Your task to perform on an android device: uninstall "Speedtest by Ookla" Image 0: 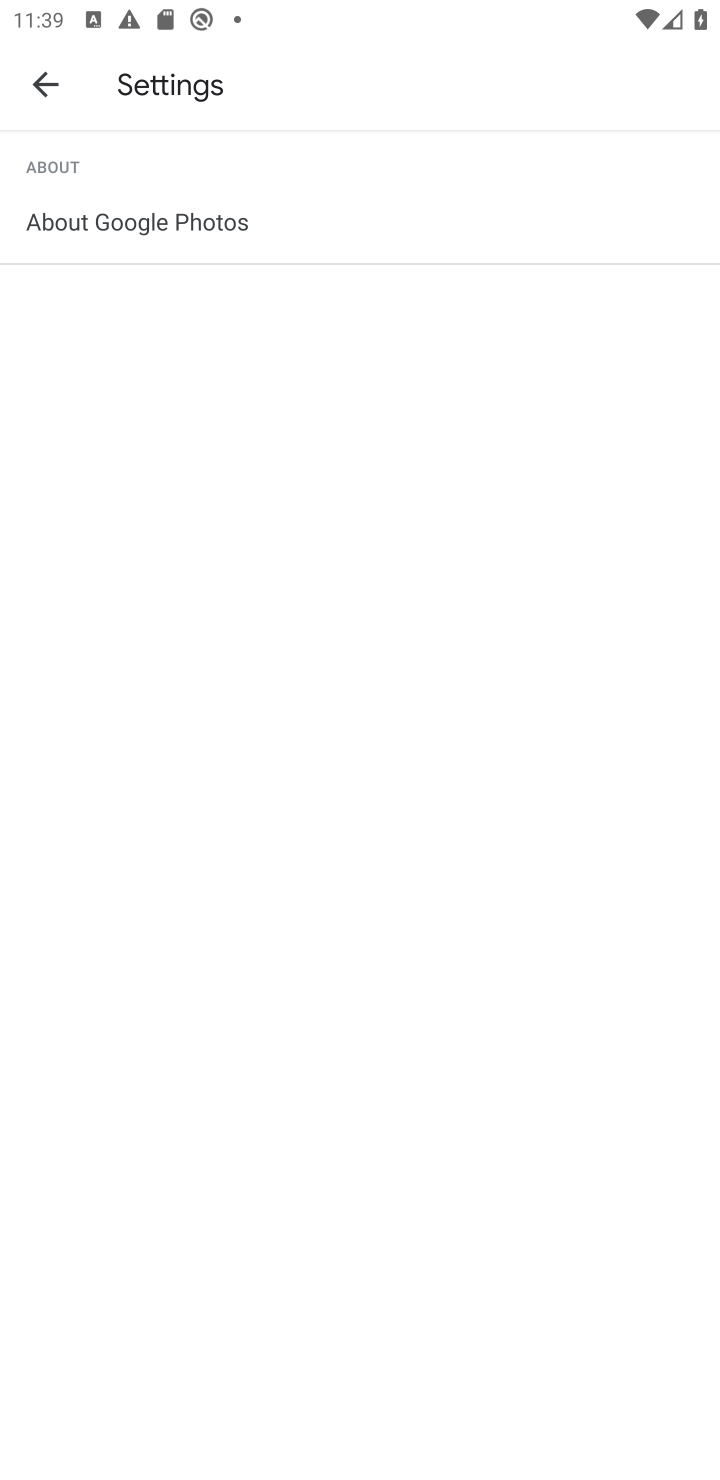
Step 0: press home button
Your task to perform on an android device: uninstall "Speedtest by Ookla" Image 1: 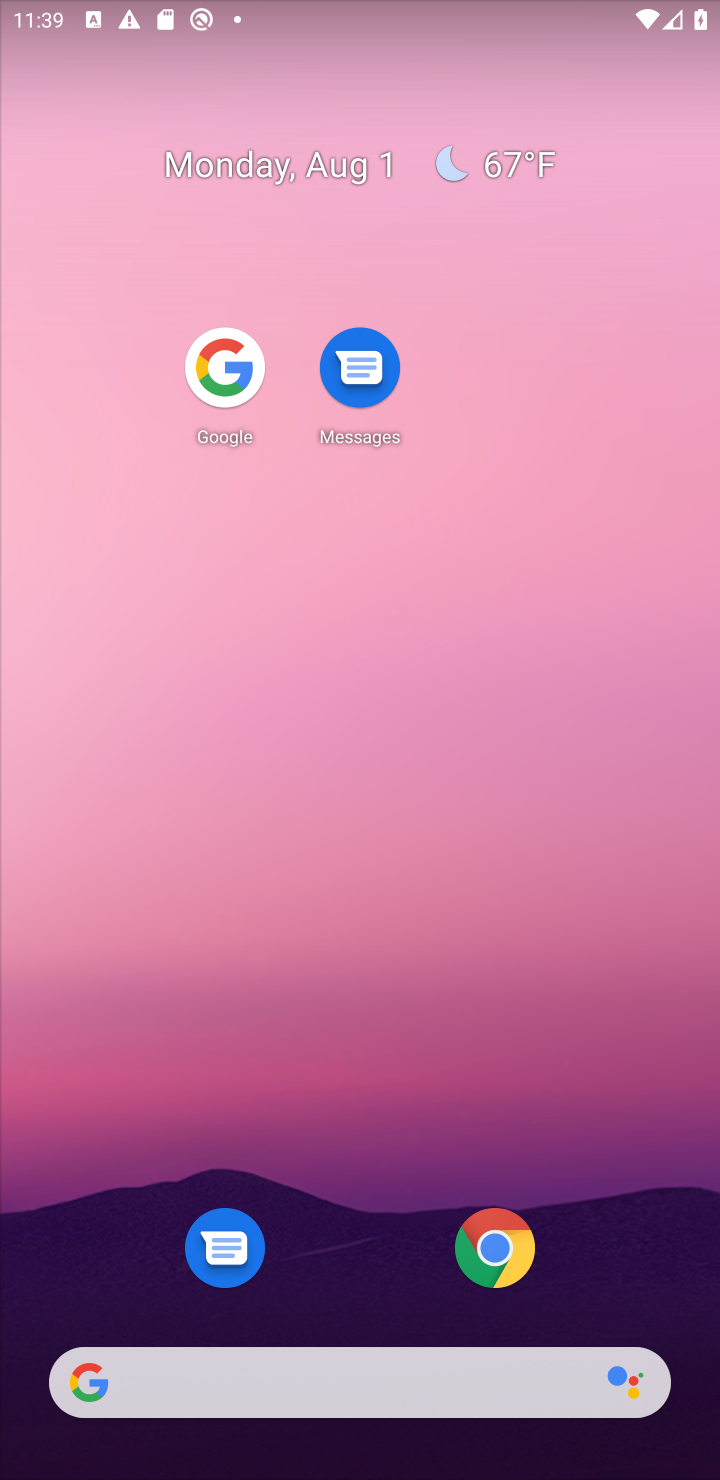
Step 1: drag from (654, 1231) to (603, 203)
Your task to perform on an android device: uninstall "Speedtest by Ookla" Image 2: 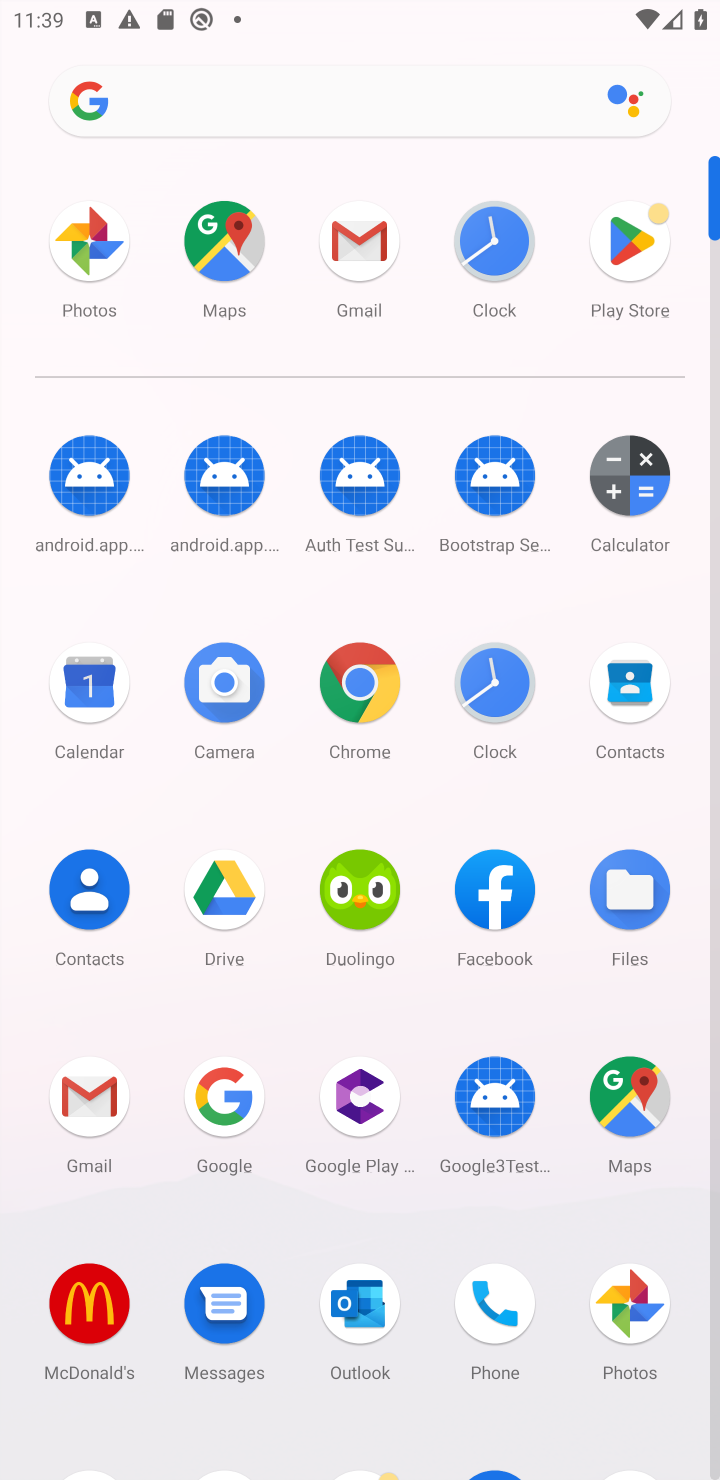
Step 2: drag from (400, 1217) to (418, 435)
Your task to perform on an android device: uninstall "Speedtest by Ookla" Image 3: 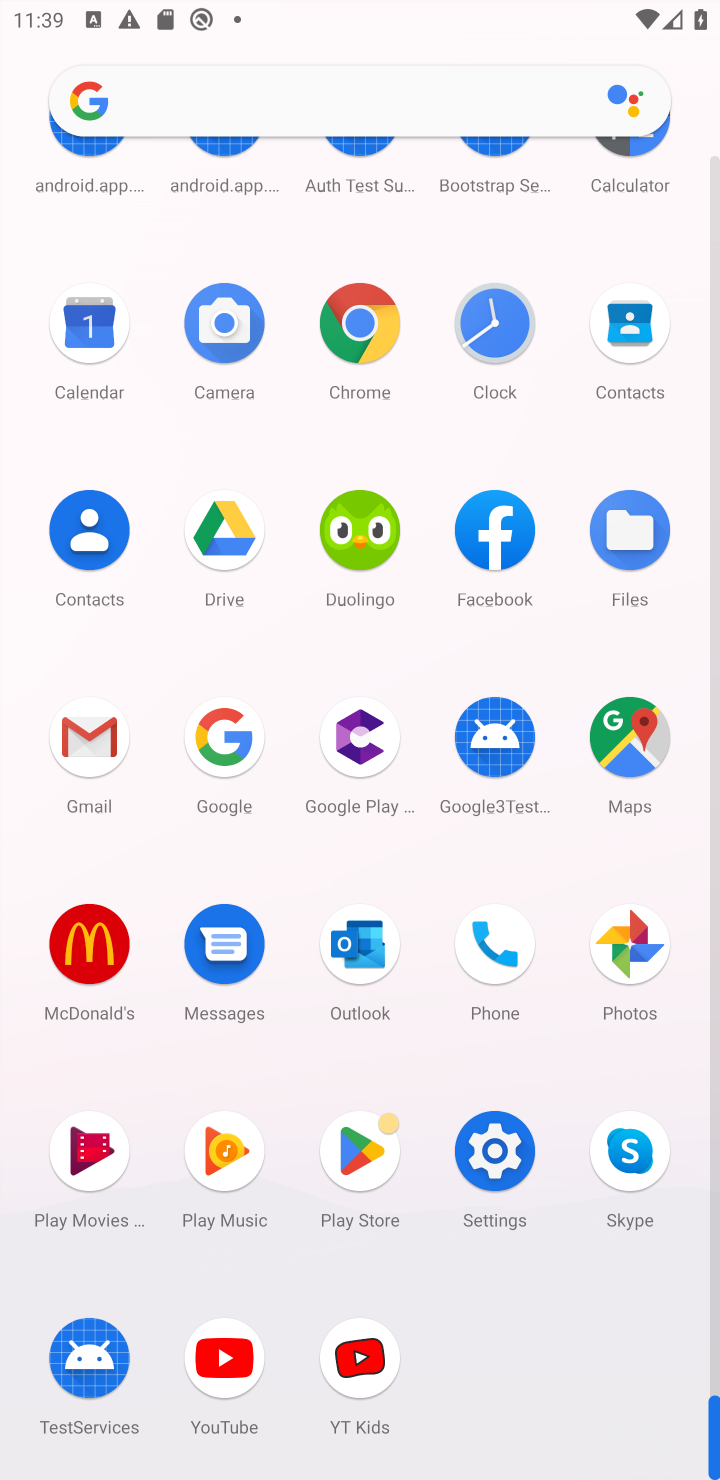
Step 3: click (363, 1152)
Your task to perform on an android device: uninstall "Speedtest by Ookla" Image 4: 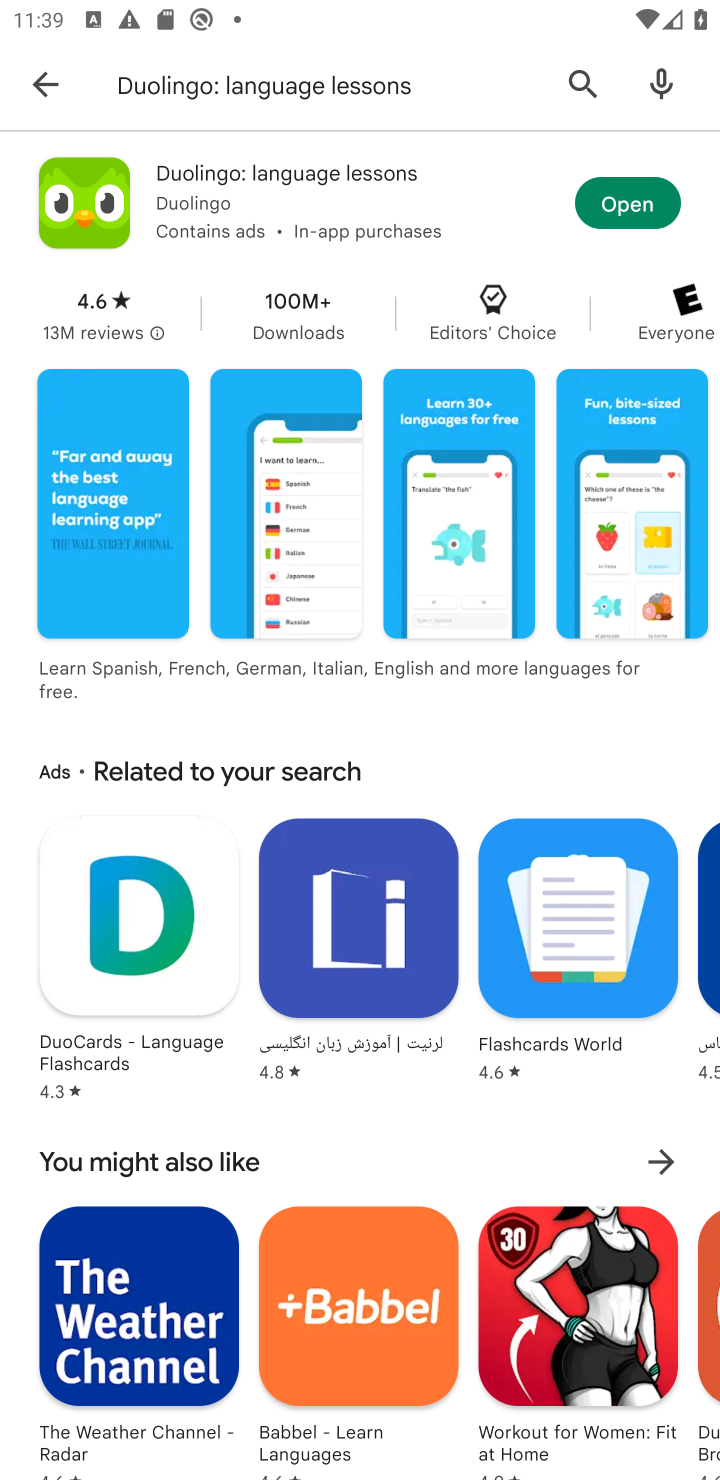
Step 4: click (459, 58)
Your task to perform on an android device: uninstall "Speedtest by Ookla" Image 5: 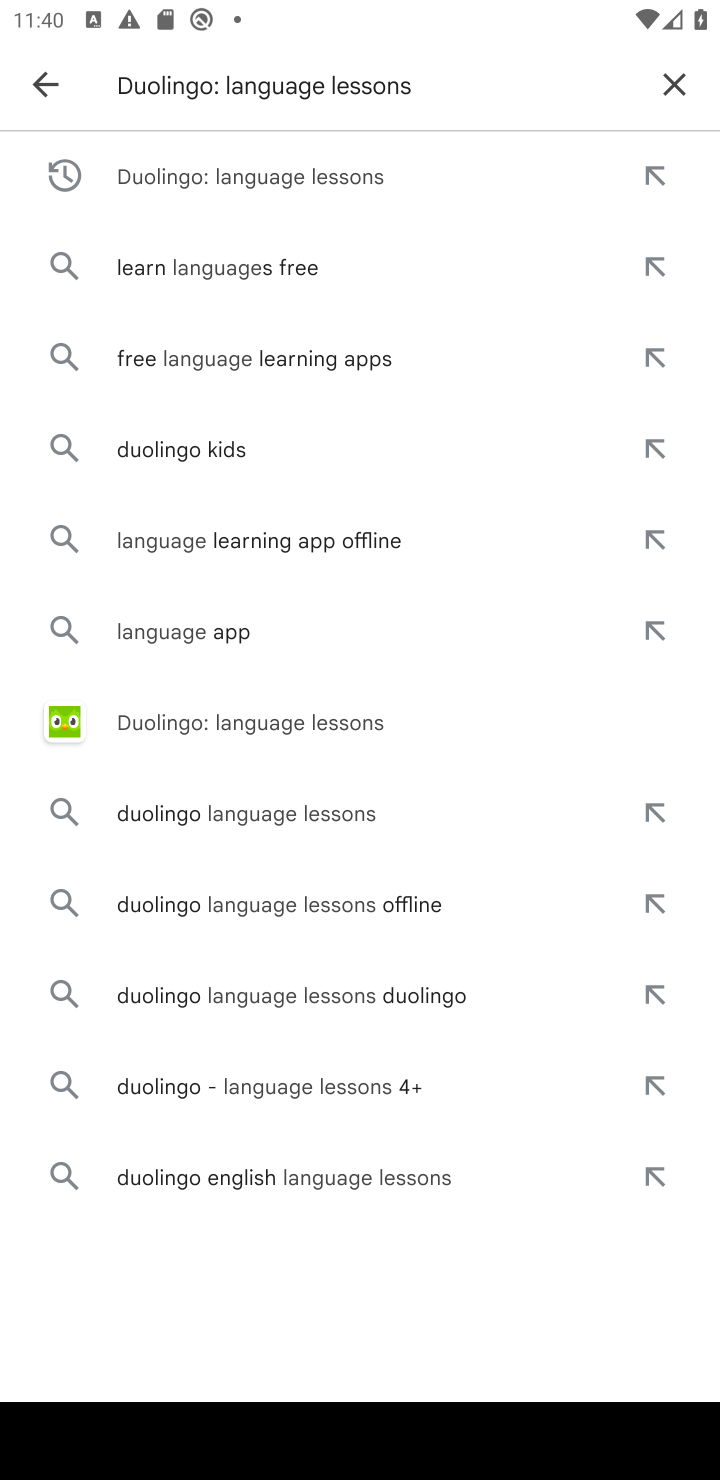
Step 5: click (681, 76)
Your task to perform on an android device: uninstall "Speedtest by Ookla" Image 6: 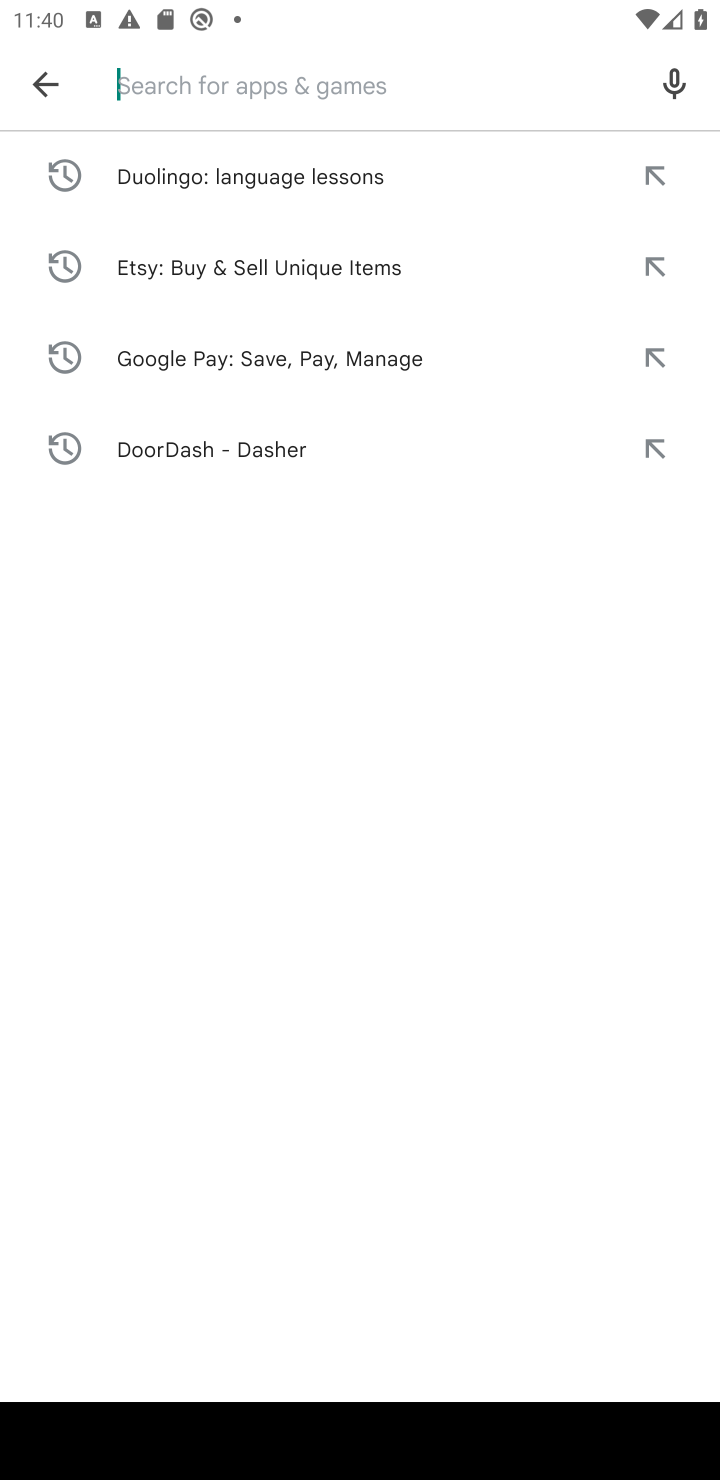
Step 6: type "Speedtest by Ookla"
Your task to perform on an android device: uninstall "Speedtest by Ookla" Image 7: 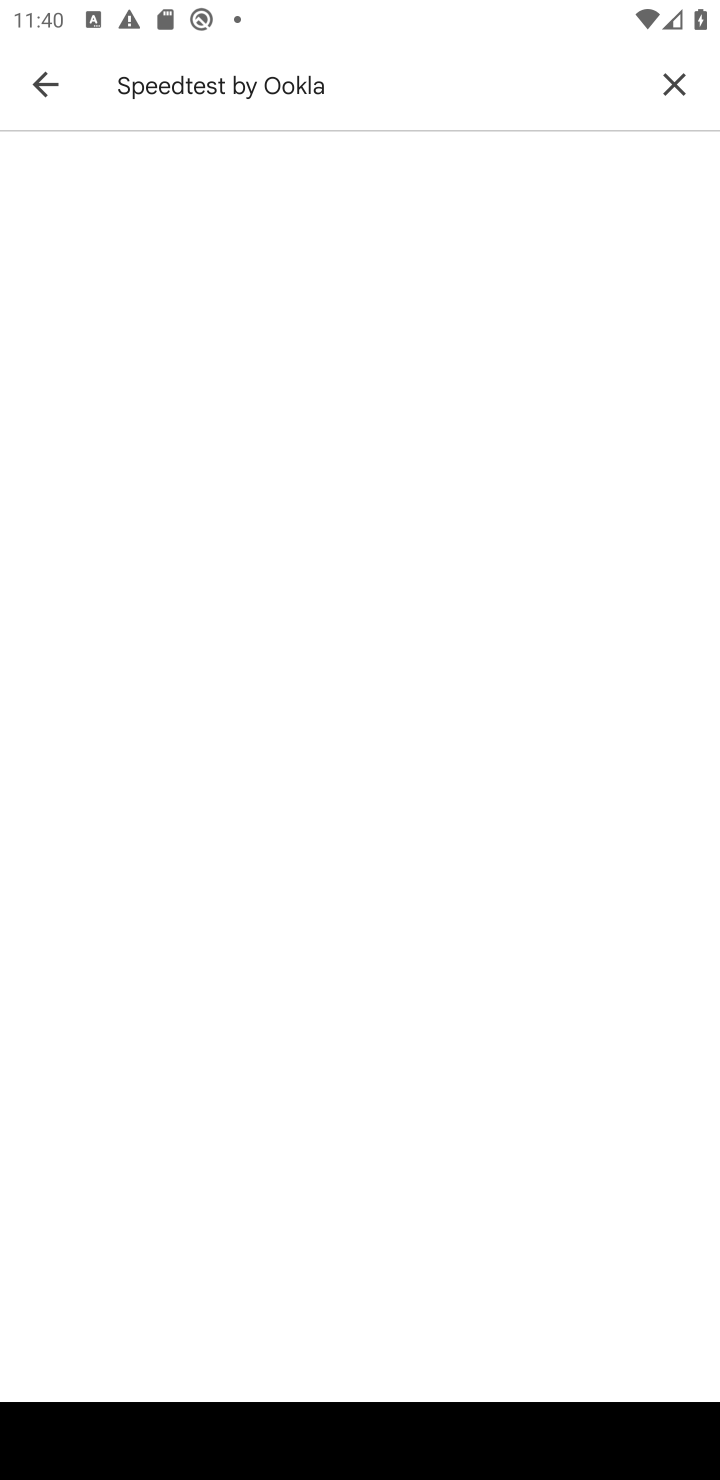
Step 7: press enter
Your task to perform on an android device: uninstall "Speedtest by Ookla" Image 8: 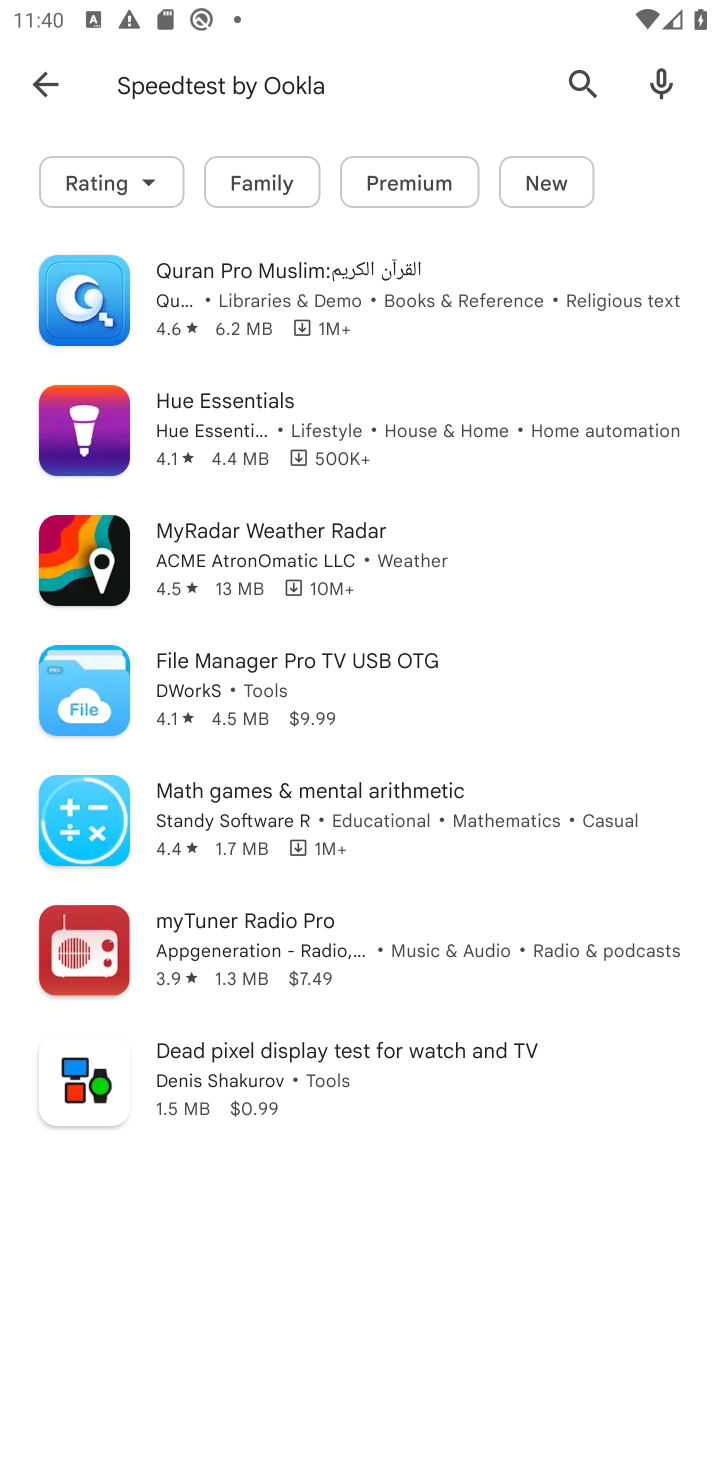
Step 8: task complete